Your task to perform on an android device: change notifications settings Image 0: 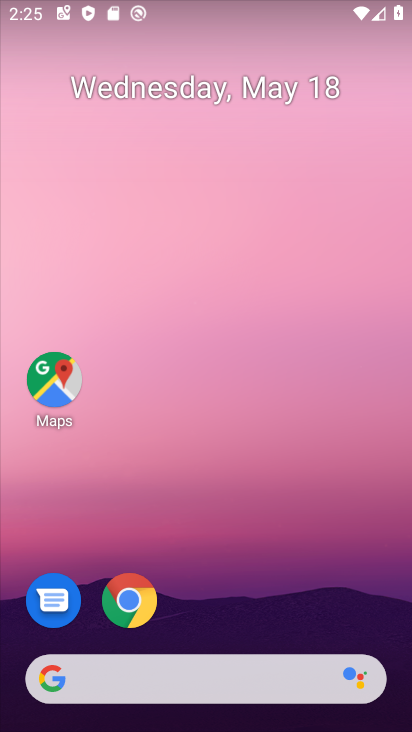
Step 0: drag from (229, 600) to (359, 121)
Your task to perform on an android device: change notifications settings Image 1: 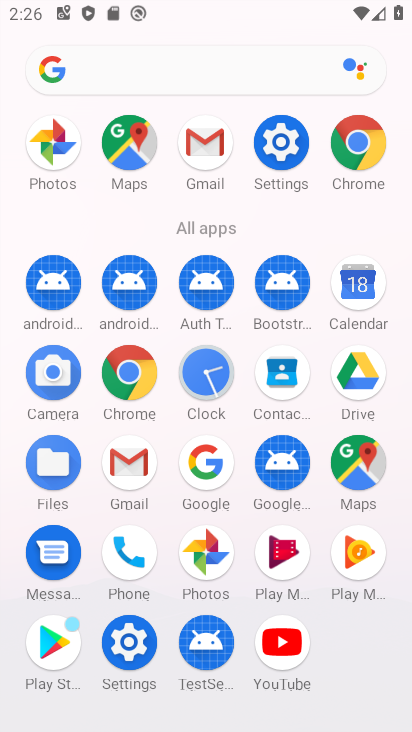
Step 1: click (109, 655)
Your task to perform on an android device: change notifications settings Image 2: 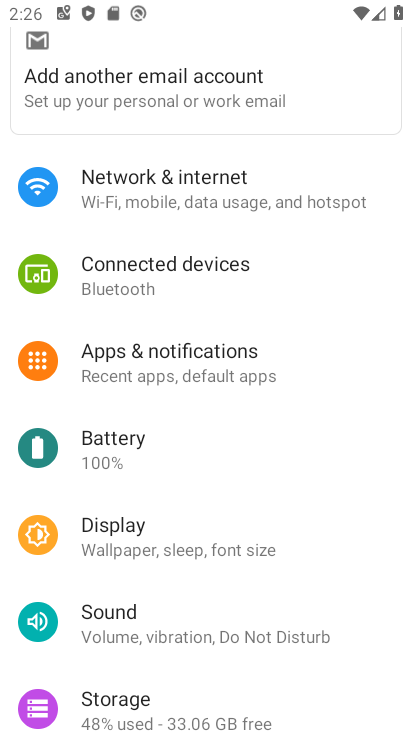
Step 2: click (176, 370)
Your task to perform on an android device: change notifications settings Image 3: 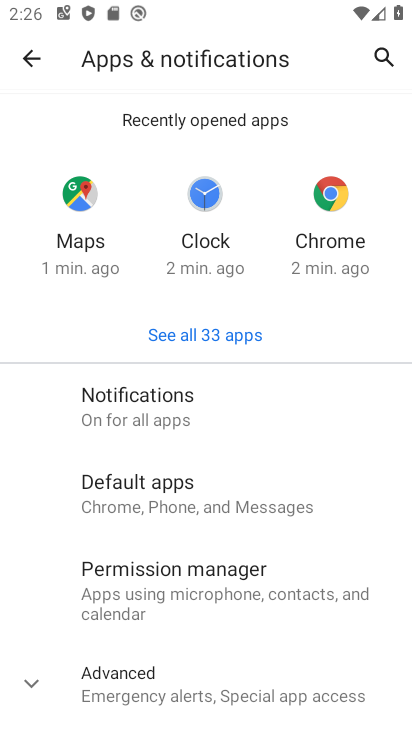
Step 3: click (166, 415)
Your task to perform on an android device: change notifications settings Image 4: 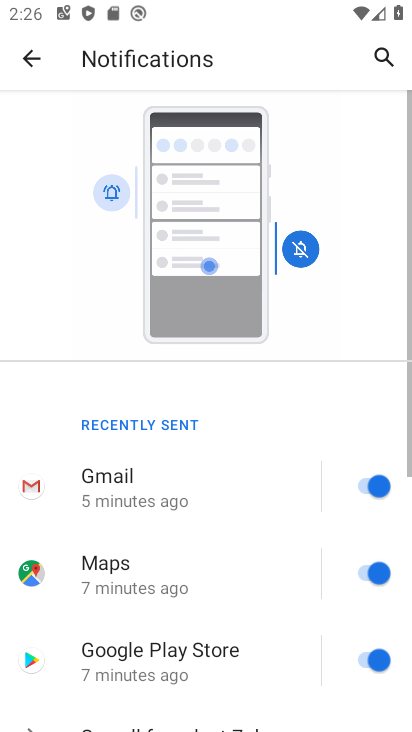
Step 4: drag from (179, 529) to (214, 294)
Your task to perform on an android device: change notifications settings Image 5: 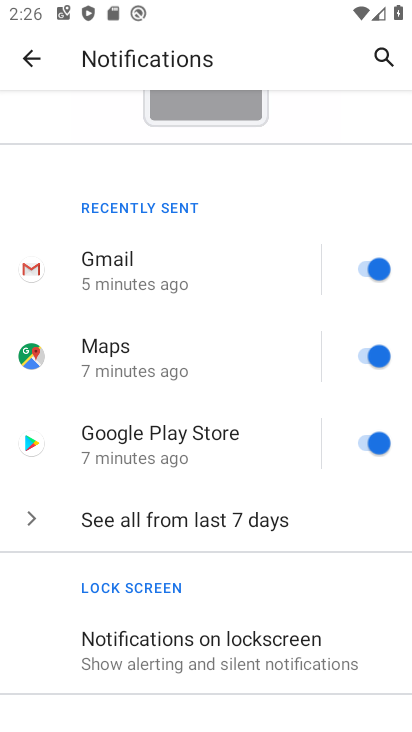
Step 5: drag from (159, 556) to (185, 381)
Your task to perform on an android device: change notifications settings Image 6: 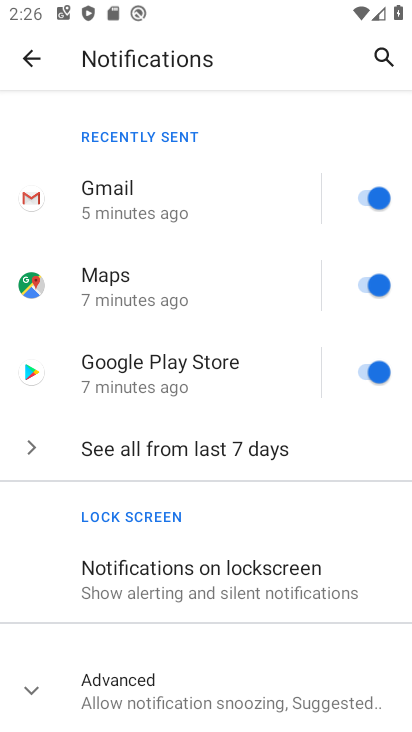
Step 6: click (365, 199)
Your task to perform on an android device: change notifications settings Image 7: 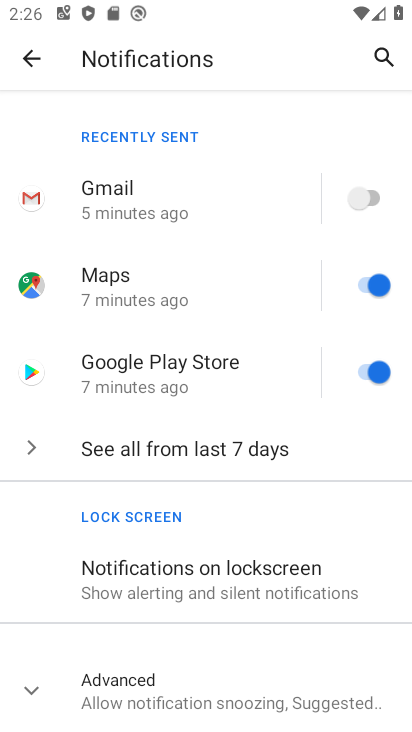
Step 7: click (369, 289)
Your task to perform on an android device: change notifications settings Image 8: 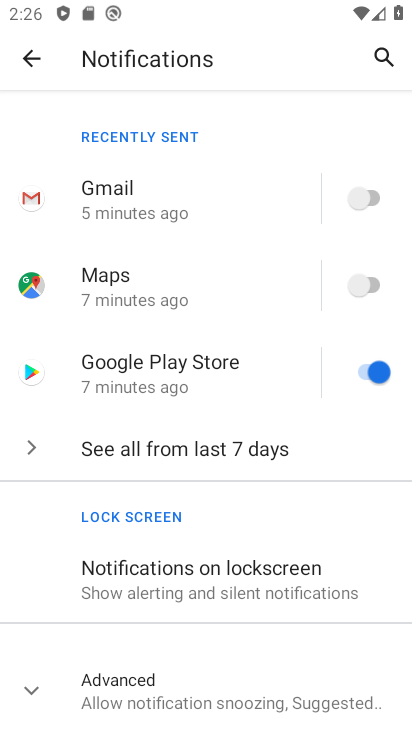
Step 8: click (364, 380)
Your task to perform on an android device: change notifications settings Image 9: 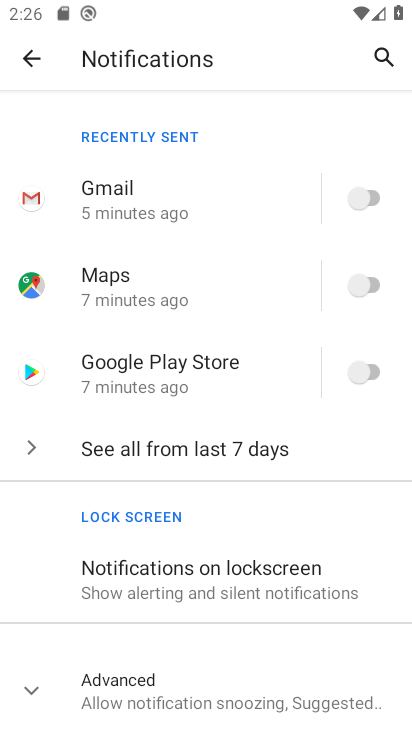
Step 9: click (255, 459)
Your task to perform on an android device: change notifications settings Image 10: 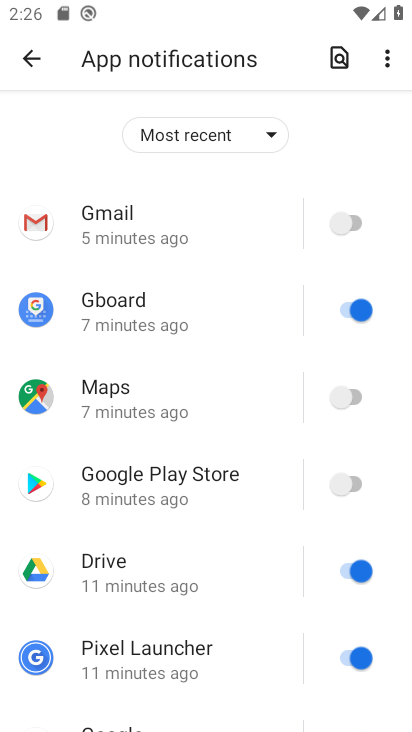
Step 10: click (342, 307)
Your task to perform on an android device: change notifications settings Image 11: 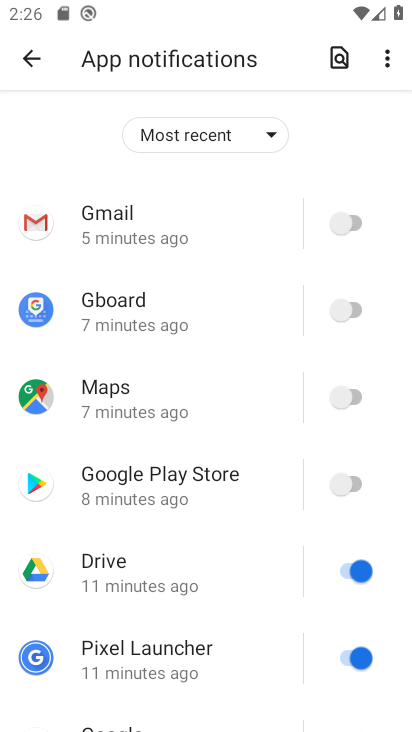
Step 11: click (352, 566)
Your task to perform on an android device: change notifications settings Image 12: 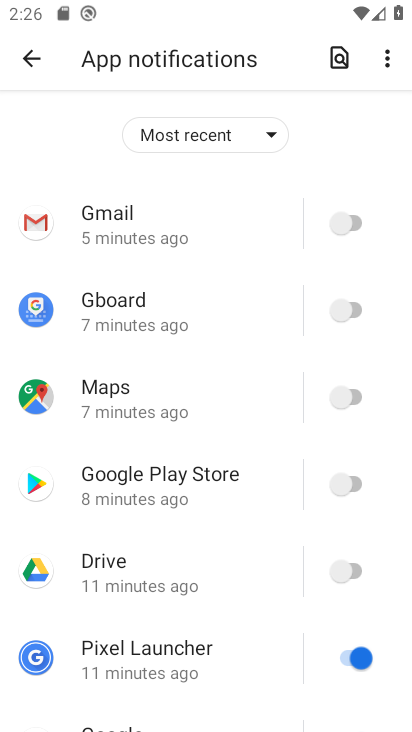
Step 12: drag from (300, 581) to (329, 260)
Your task to perform on an android device: change notifications settings Image 13: 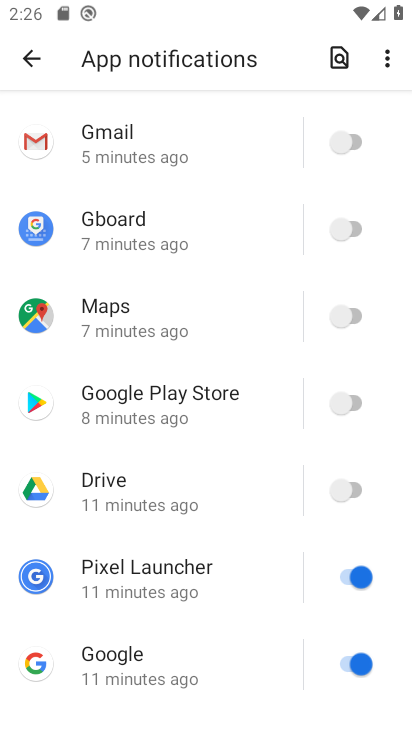
Step 13: click (333, 600)
Your task to perform on an android device: change notifications settings Image 14: 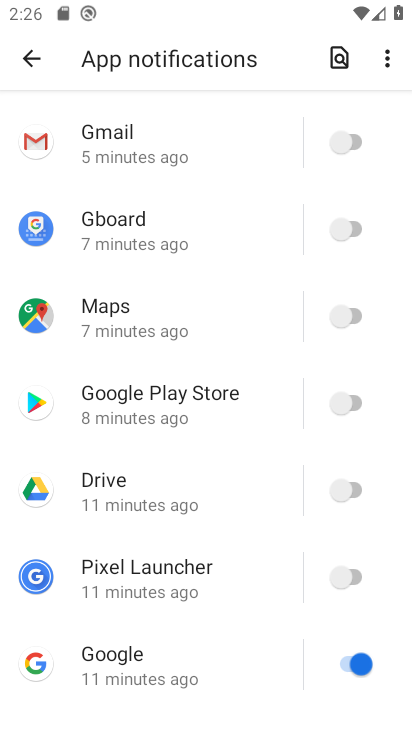
Step 14: click (348, 658)
Your task to perform on an android device: change notifications settings Image 15: 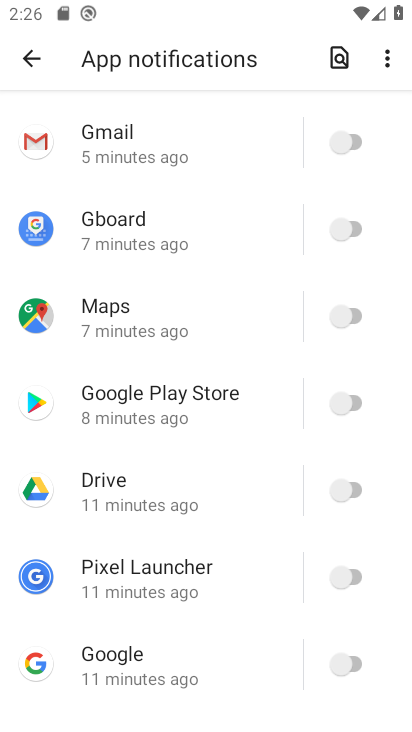
Step 15: task complete